Your task to perform on an android device: Set the phone to "Do not disturb". Image 0: 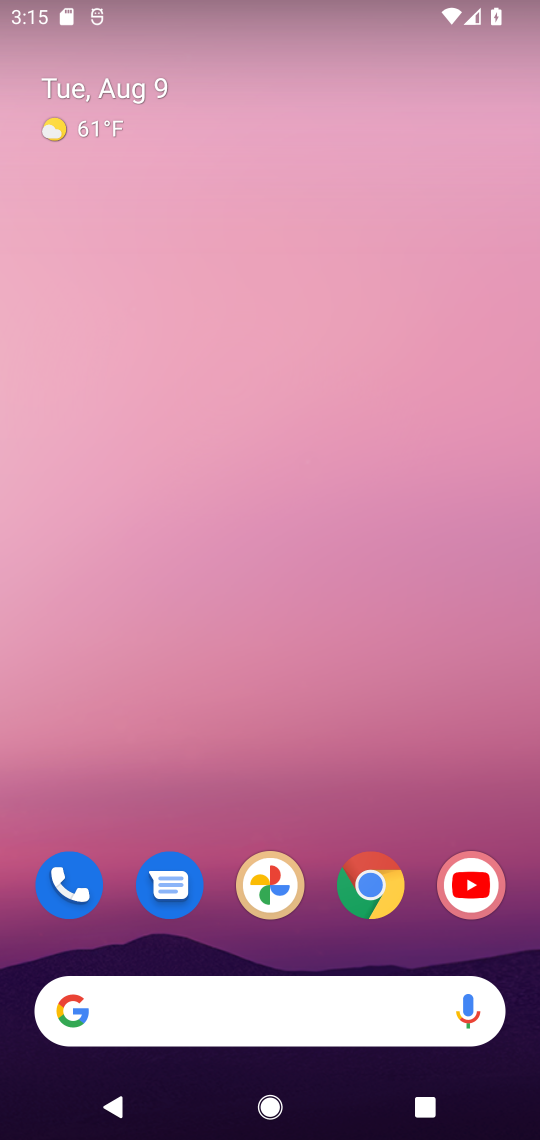
Step 0: drag from (276, 725) to (258, 258)
Your task to perform on an android device: Set the phone to "Do not disturb". Image 1: 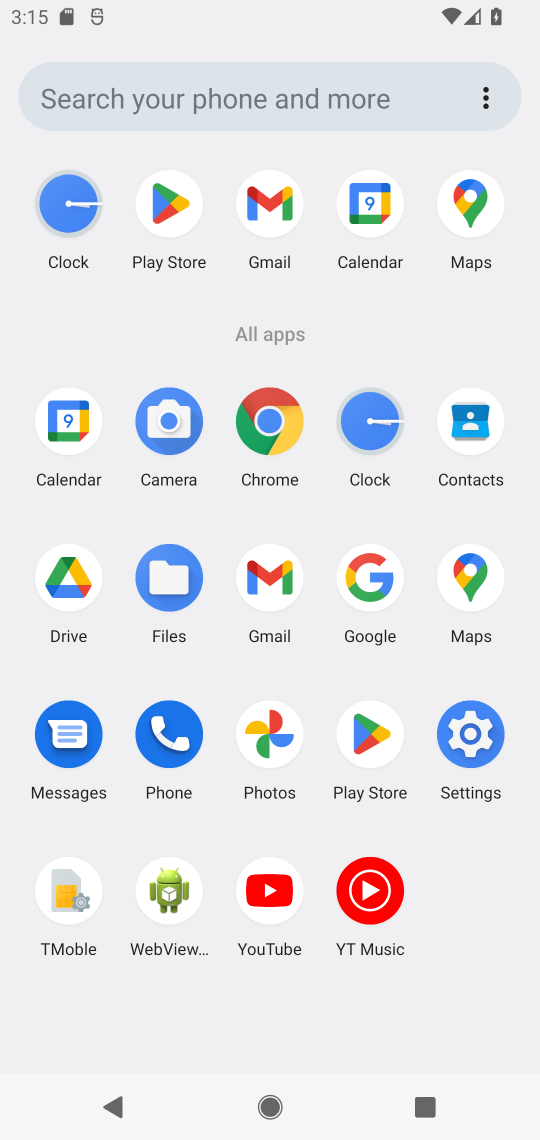
Step 1: drag from (253, 30) to (173, 641)
Your task to perform on an android device: Set the phone to "Do not disturb". Image 2: 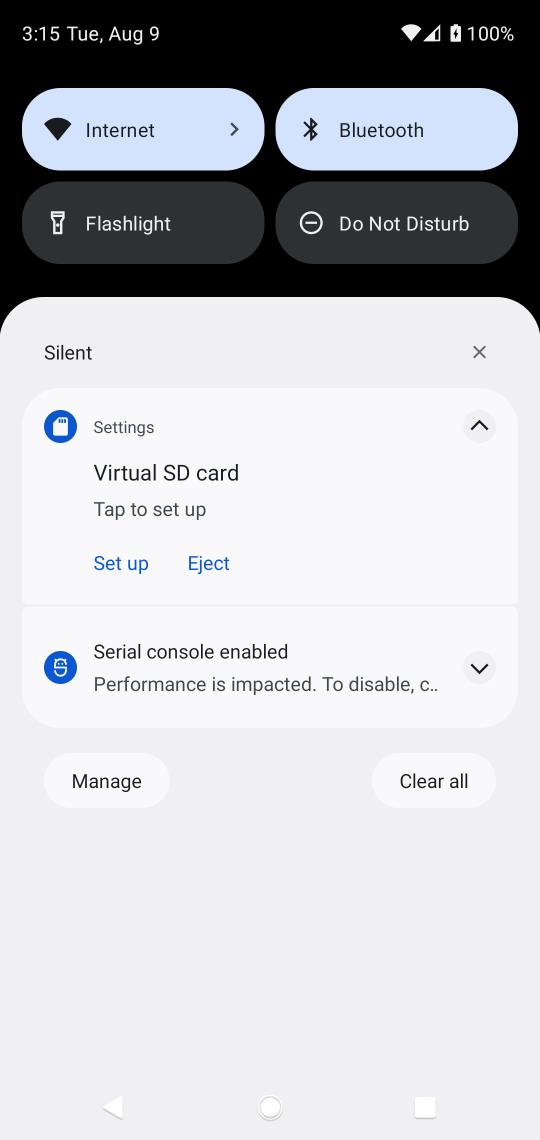
Step 2: click (352, 233)
Your task to perform on an android device: Set the phone to "Do not disturb". Image 3: 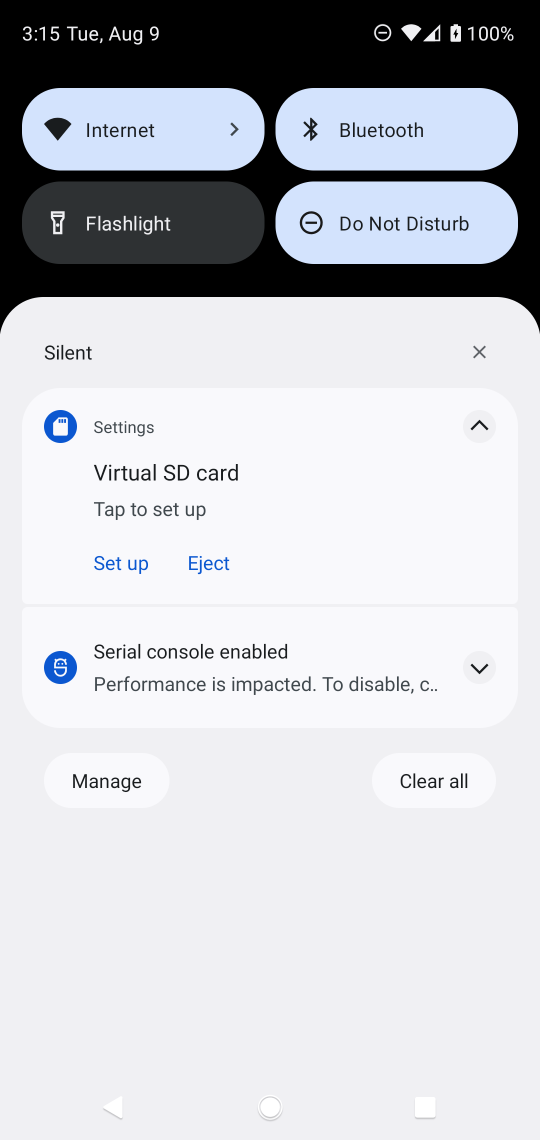
Step 3: task complete